Your task to perform on an android device: check the backup settings in the google photos Image 0: 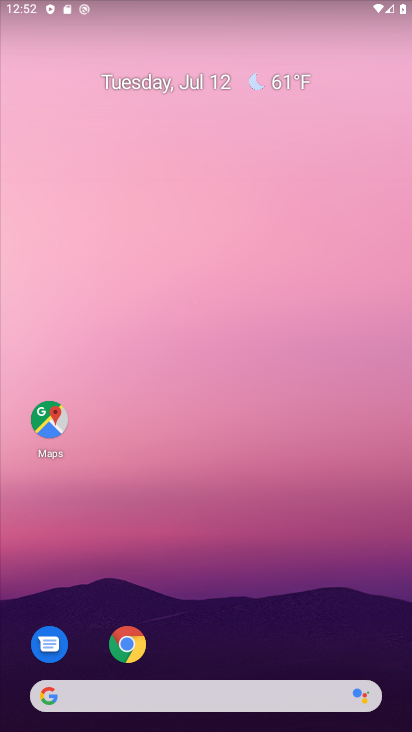
Step 0: drag from (179, 662) to (304, 158)
Your task to perform on an android device: check the backup settings in the google photos Image 1: 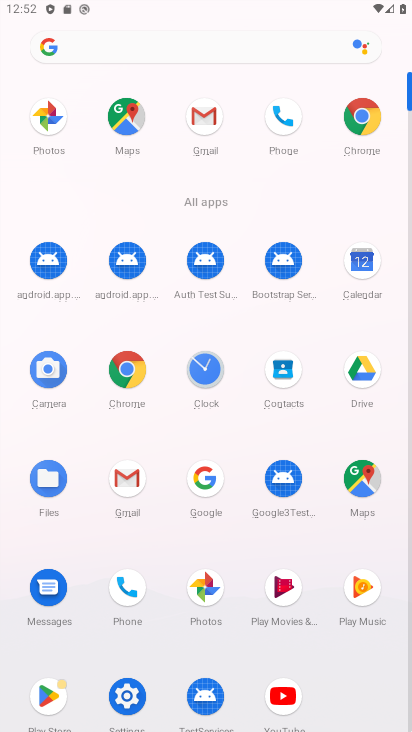
Step 1: click (199, 588)
Your task to perform on an android device: check the backup settings in the google photos Image 2: 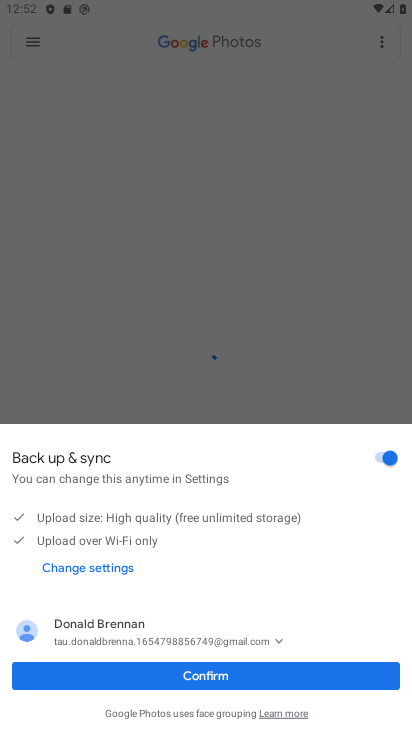
Step 2: click (213, 673)
Your task to perform on an android device: check the backup settings in the google photos Image 3: 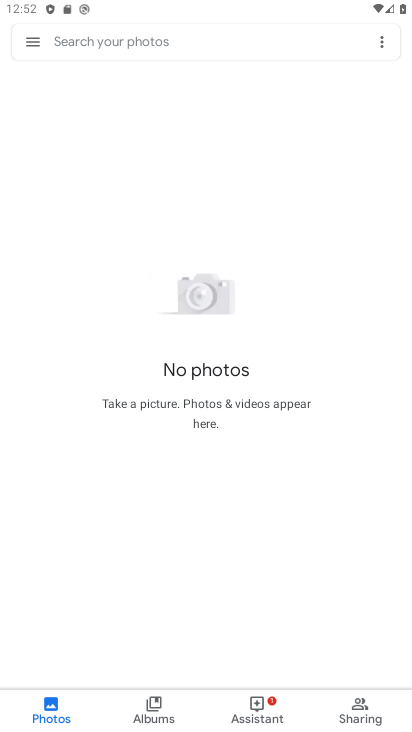
Step 3: click (39, 39)
Your task to perform on an android device: check the backup settings in the google photos Image 4: 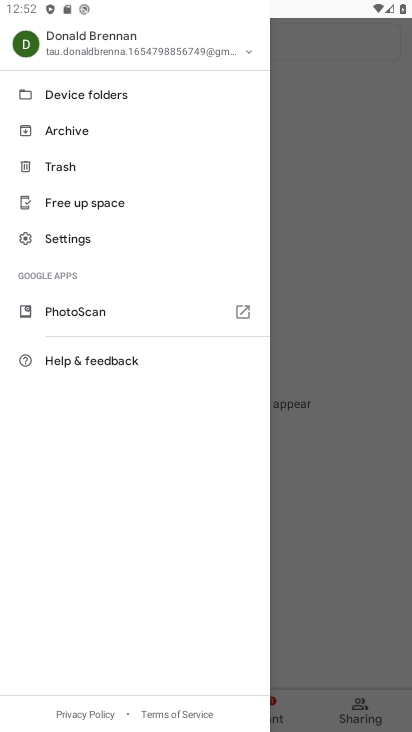
Step 4: click (101, 238)
Your task to perform on an android device: check the backup settings in the google photos Image 5: 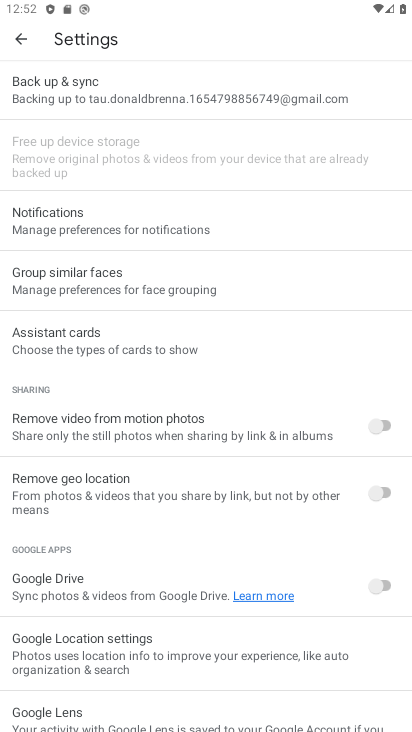
Step 5: click (105, 104)
Your task to perform on an android device: check the backup settings in the google photos Image 6: 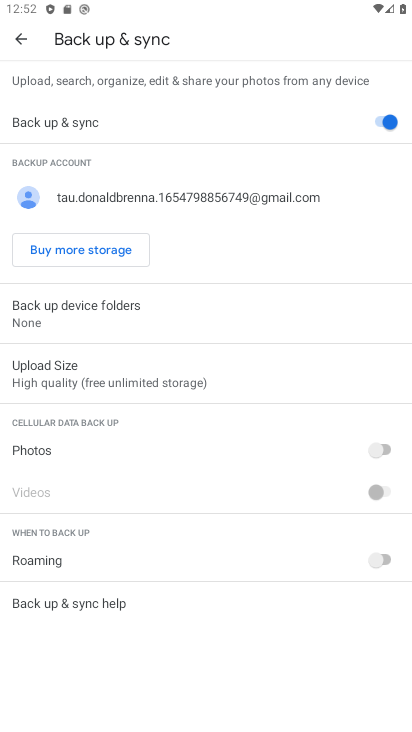
Step 6: task complete